Your task to perform on an android device: Open Amazon Image 0: 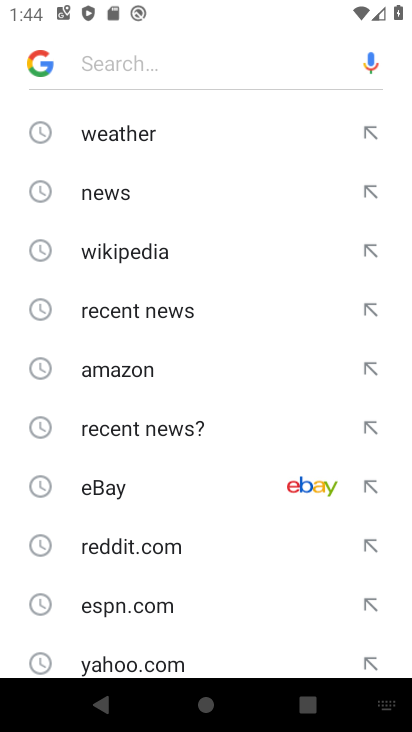
Step 0: press home button
Your task to perform on an android device: Open Amazon Image 1: 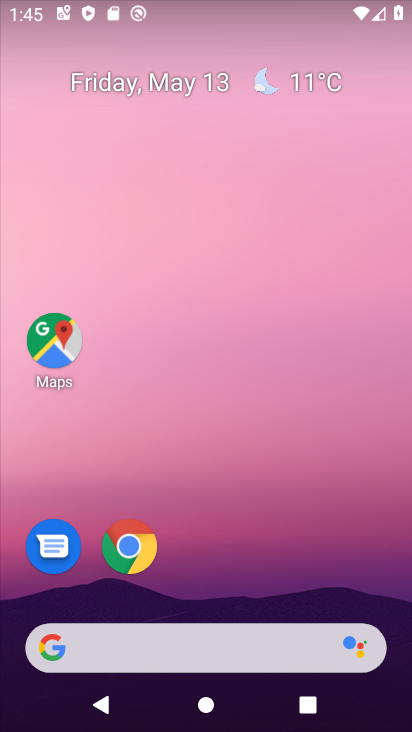
Step 1: click (138, 556)
Your task to perform on an android device: Open Amazon Image 2: 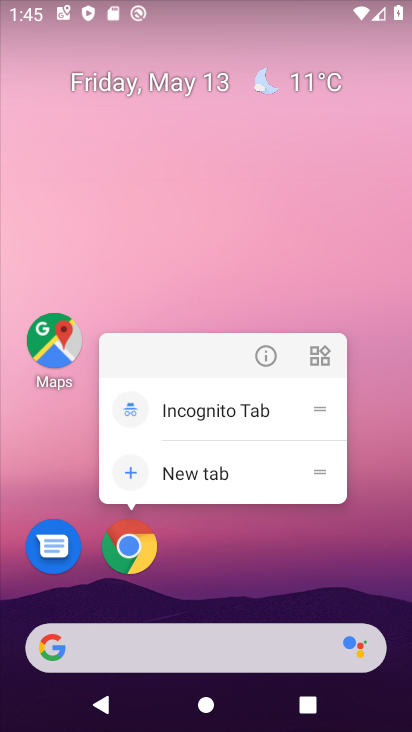
Step 2: click (153, 542)
Your task to perform on an android device: Open Amazon Image 3: 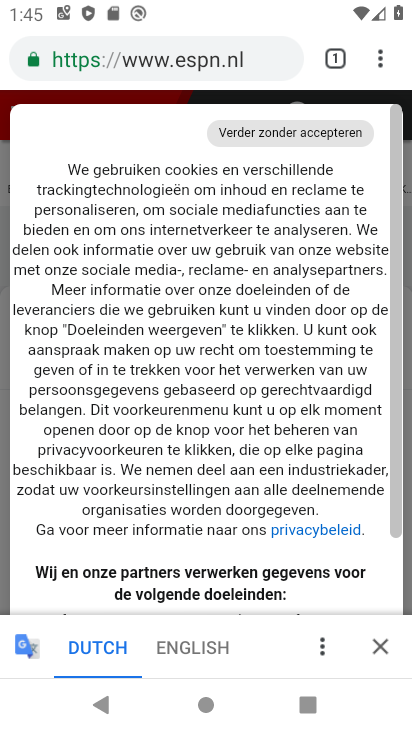
Step 3: click (255, 59)
Your task to perform on an android device: Open Amazon Image 4: 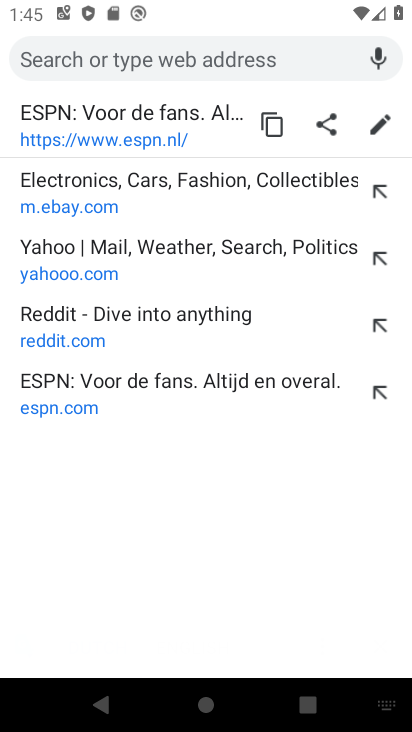
Step 4: type "amazon"
Your task to perform on an android device: Open Amazon Image 5: 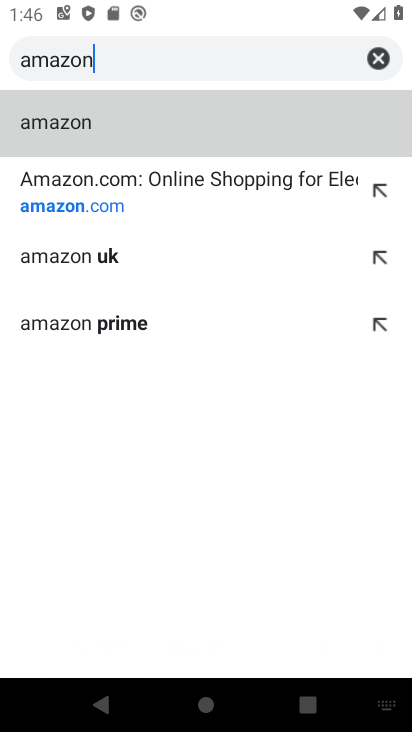
Step 5: click (242, 191)
Your task to perform on an android device: Open Amazon Image 6: 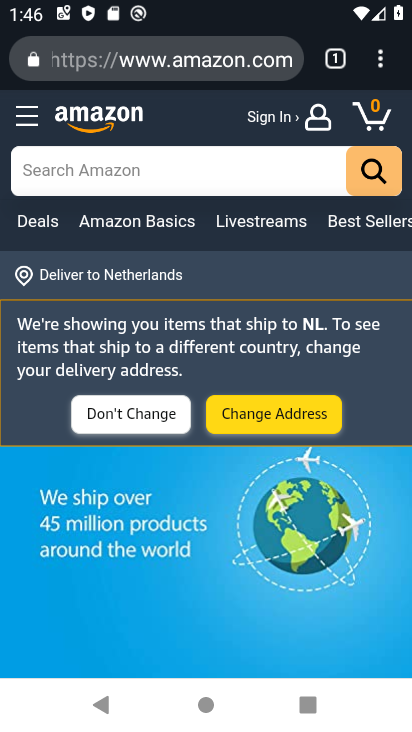
Step 6: task complete